Your task to perform on an android device: install app "PUBG MOBILE" Image 0: 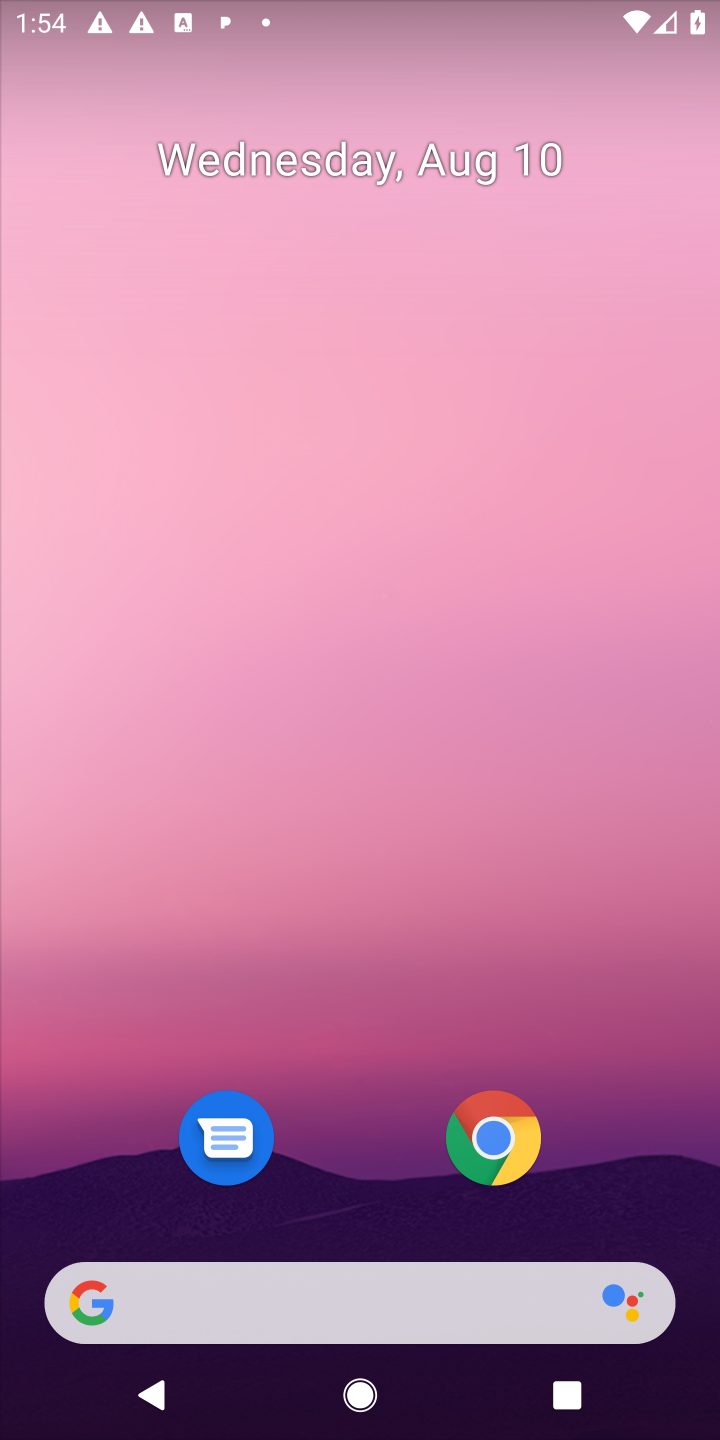
Step 0: press home button
Your task to perform on an android device: install app "PUBG MOBILE" Image 1: 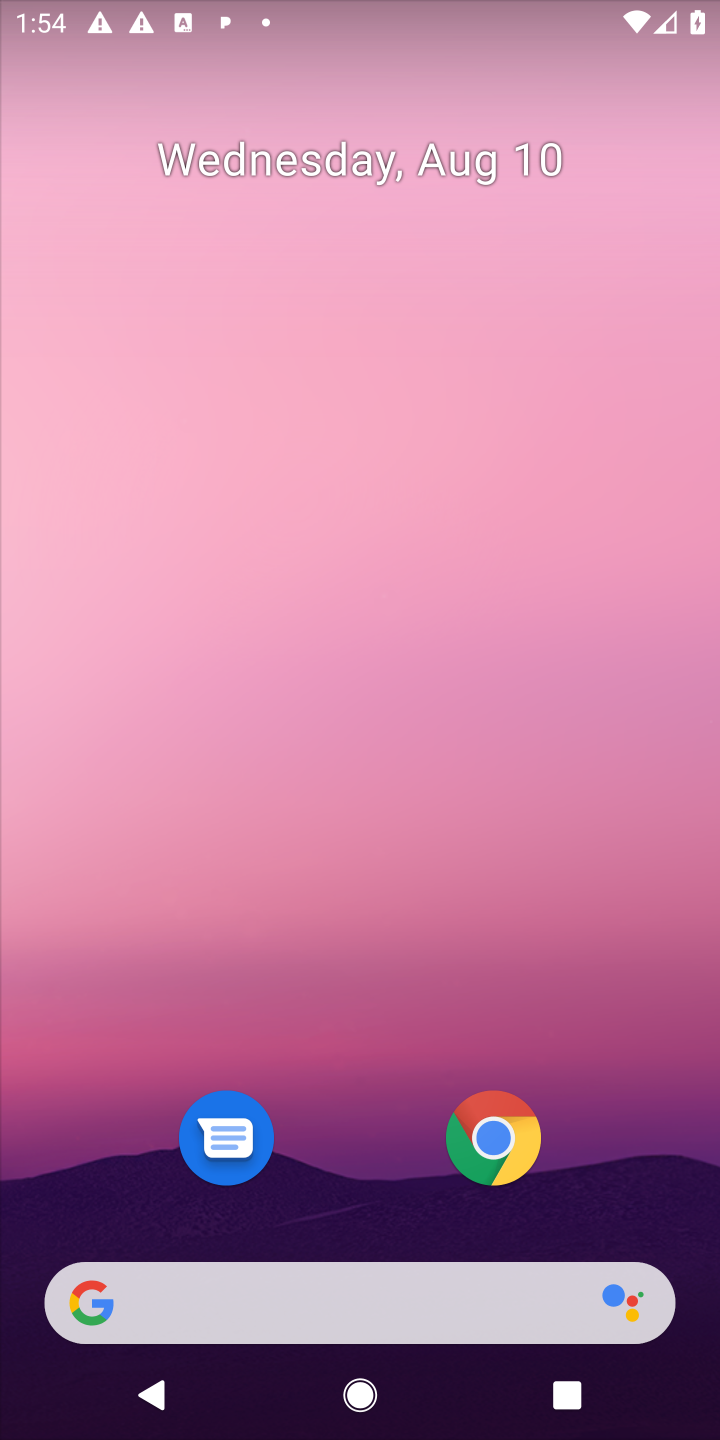
Step 1: drag from (595, 1209) to (624, 80)
Your task to perform on an android device: install app "PUBG MOBILE" Image 2: 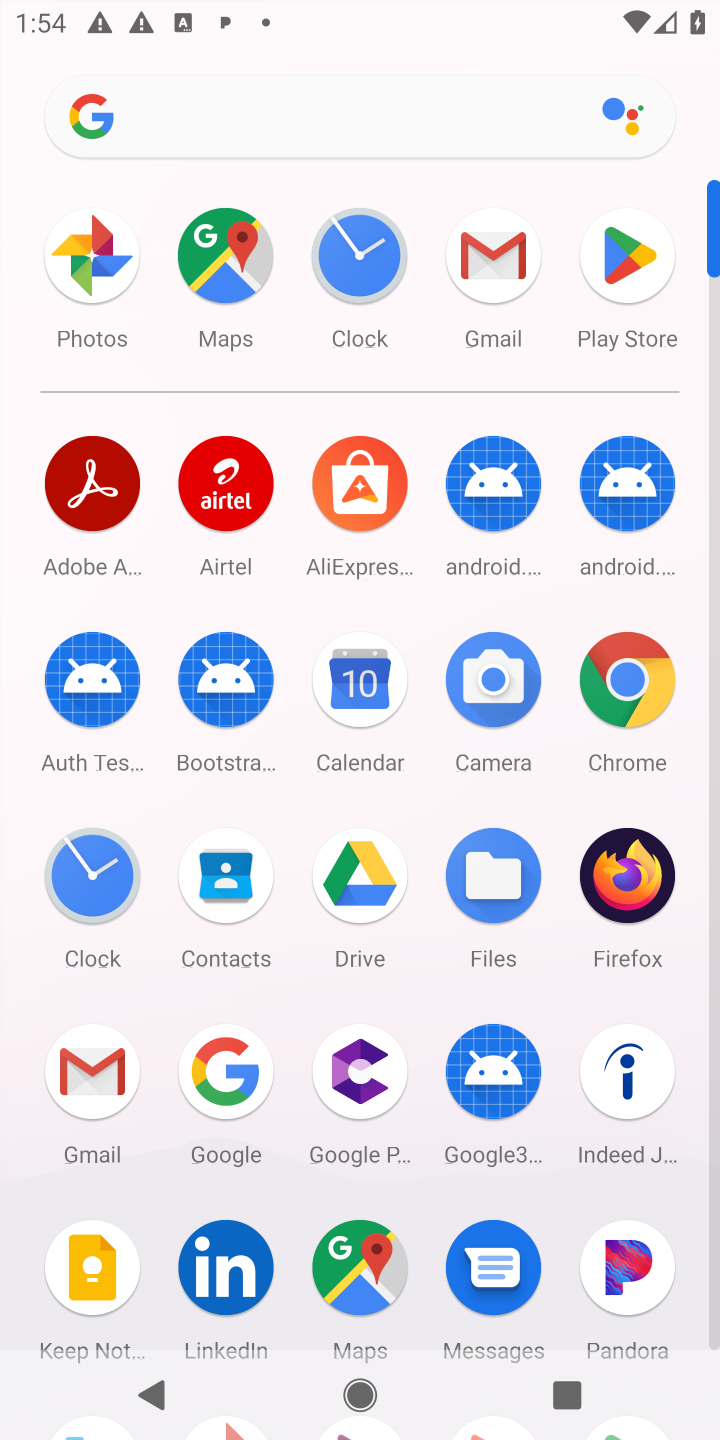
Step 2: click (618, 261)
Your task to perform on an android device: install app "PUBG MOBILE" Image 3: 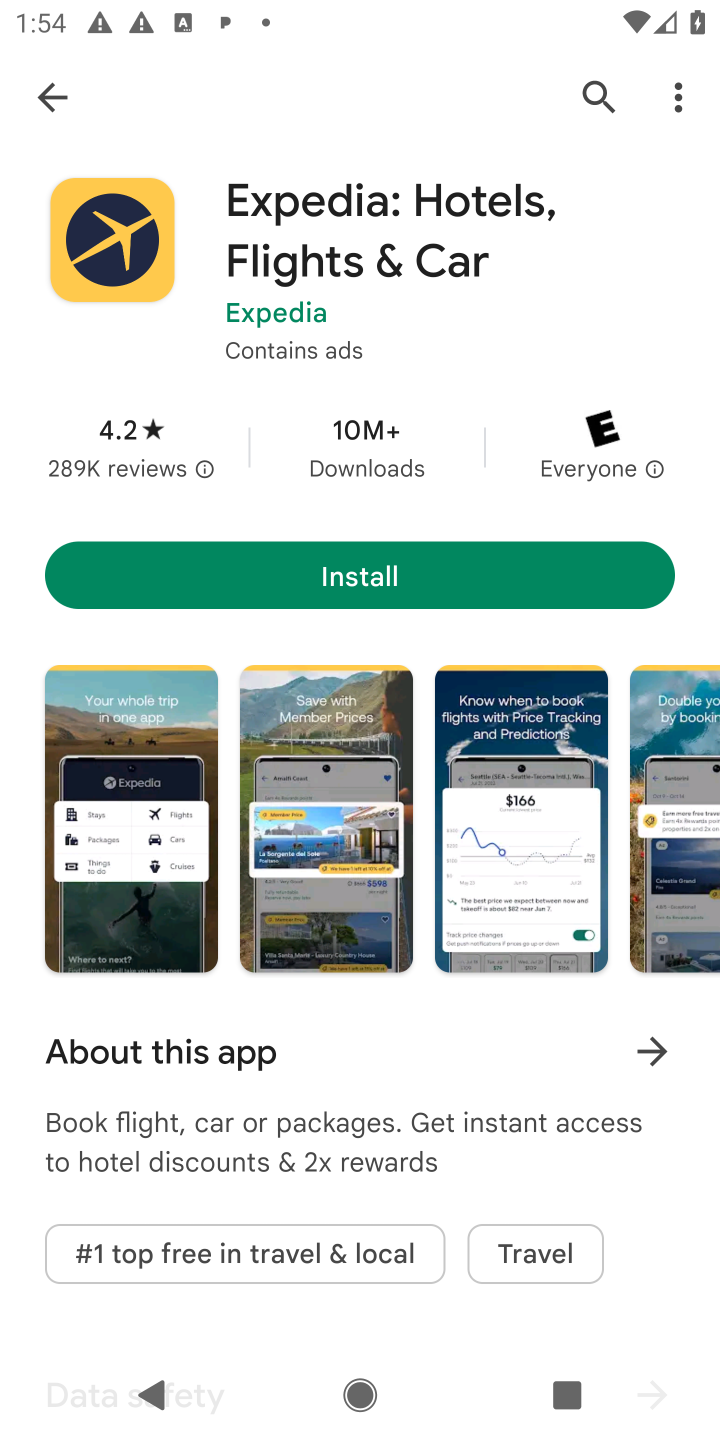
Step 3: click (596, 84)
Your task to perform on an android device: install app "PUBG MOBILE" Image 4: 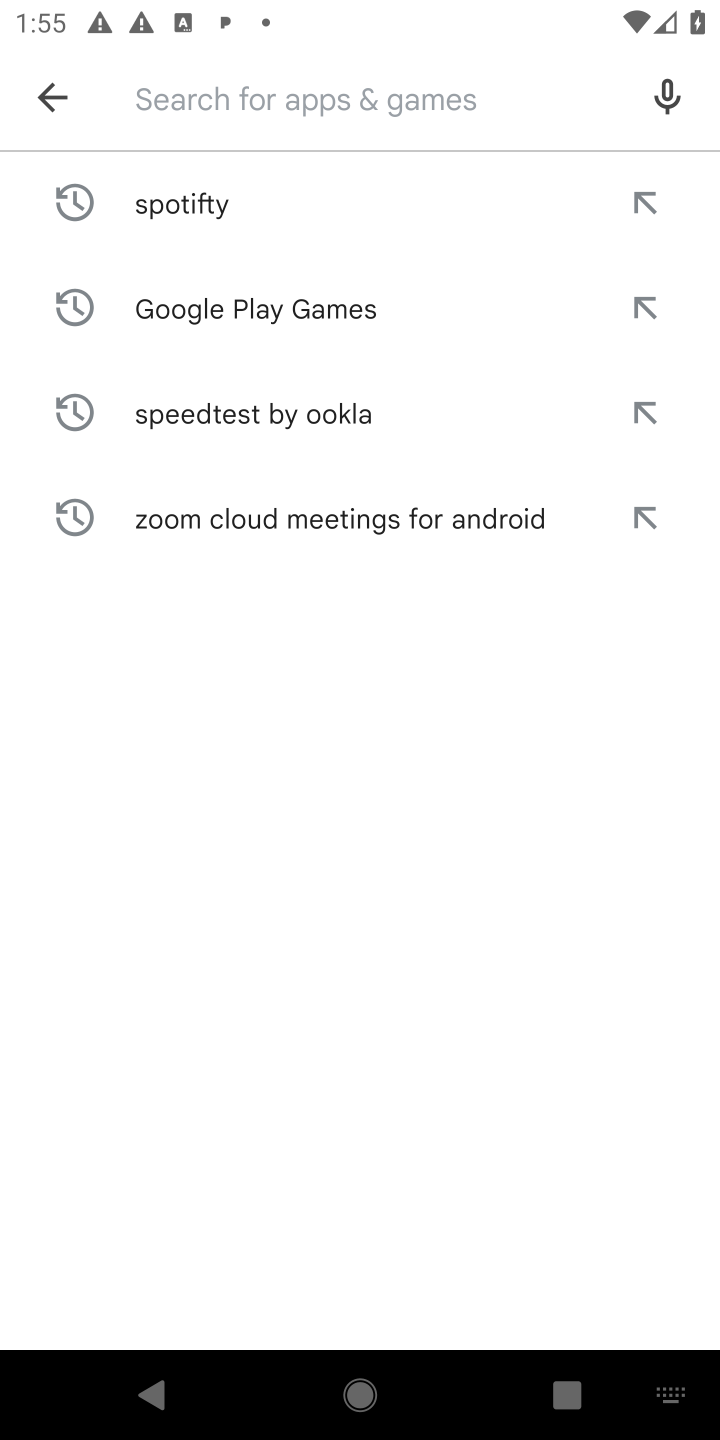
Step 4: type "pubg mobile"
Your task to perform on an android device: install app "PUBG MOBILE" Image 5: 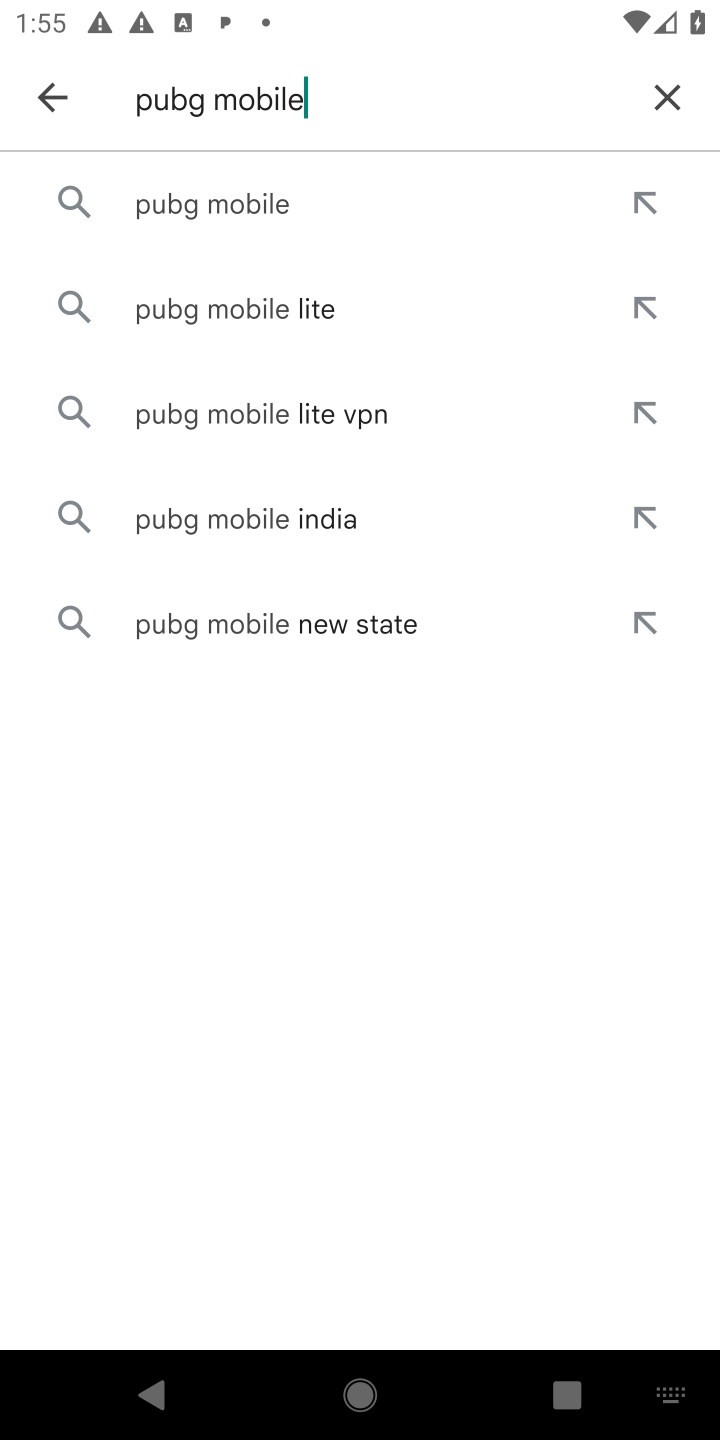
Step 5: click (526, 191)
Your task to perform on an android device: install app "PUBG MOBILE" Image 6: 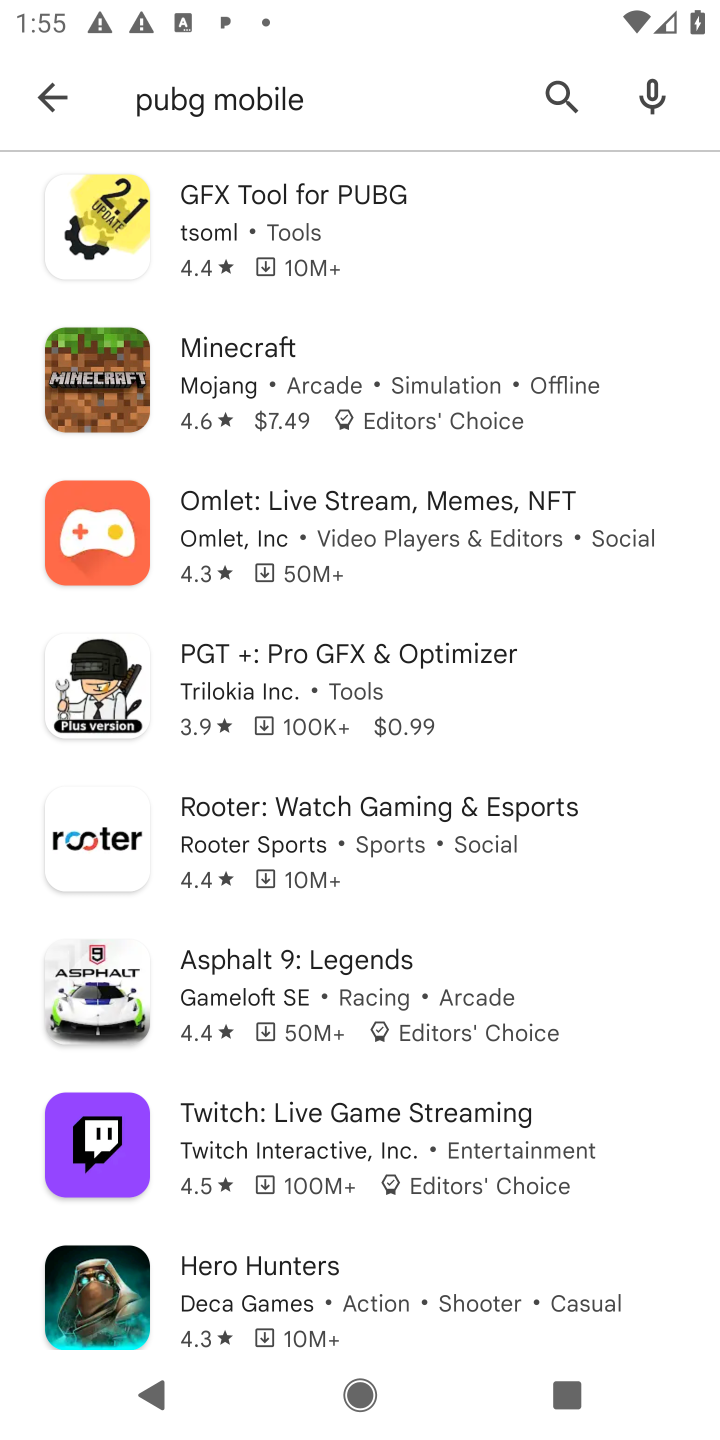
Step 6: task complete